Your task to perform on an android device: check google app version Image 0: 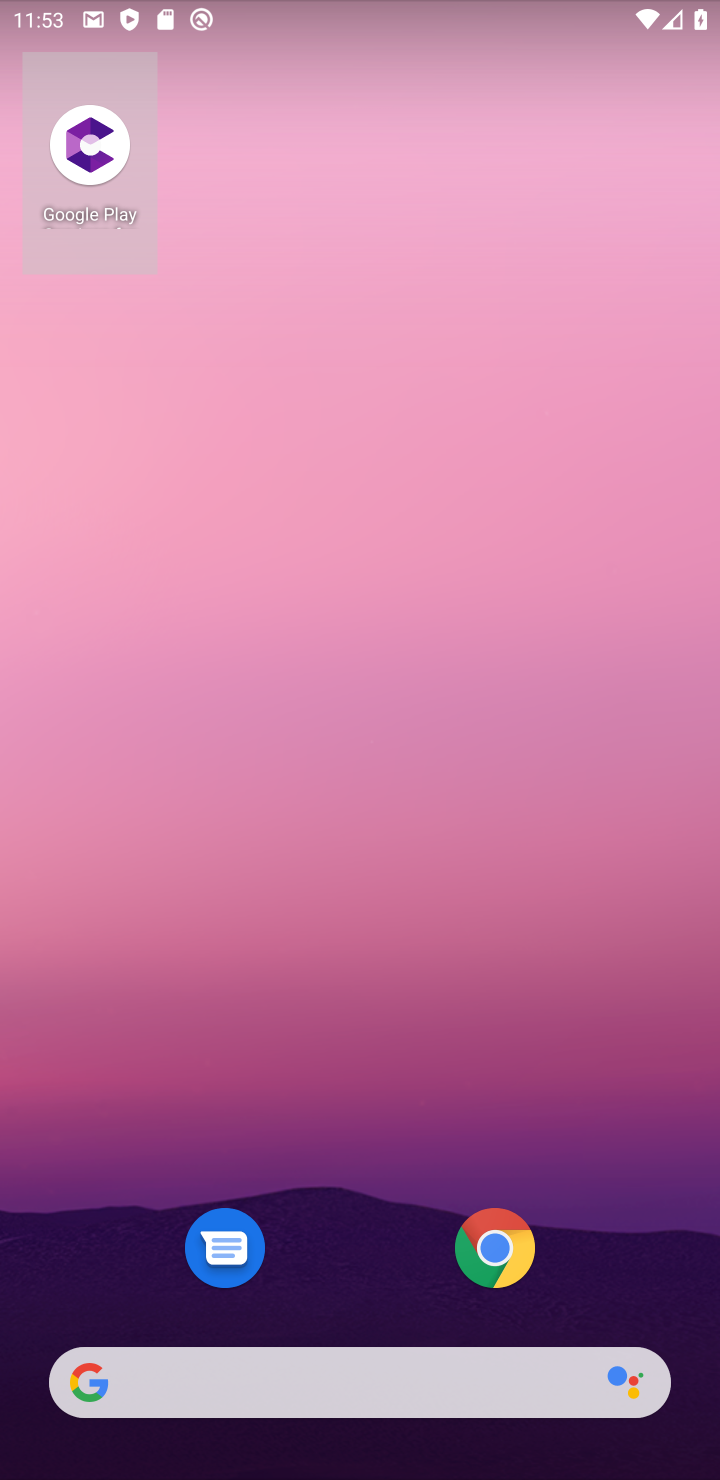
Step 0: click (395, 204)
Your task to perform on an android device: check google app version Image 1: 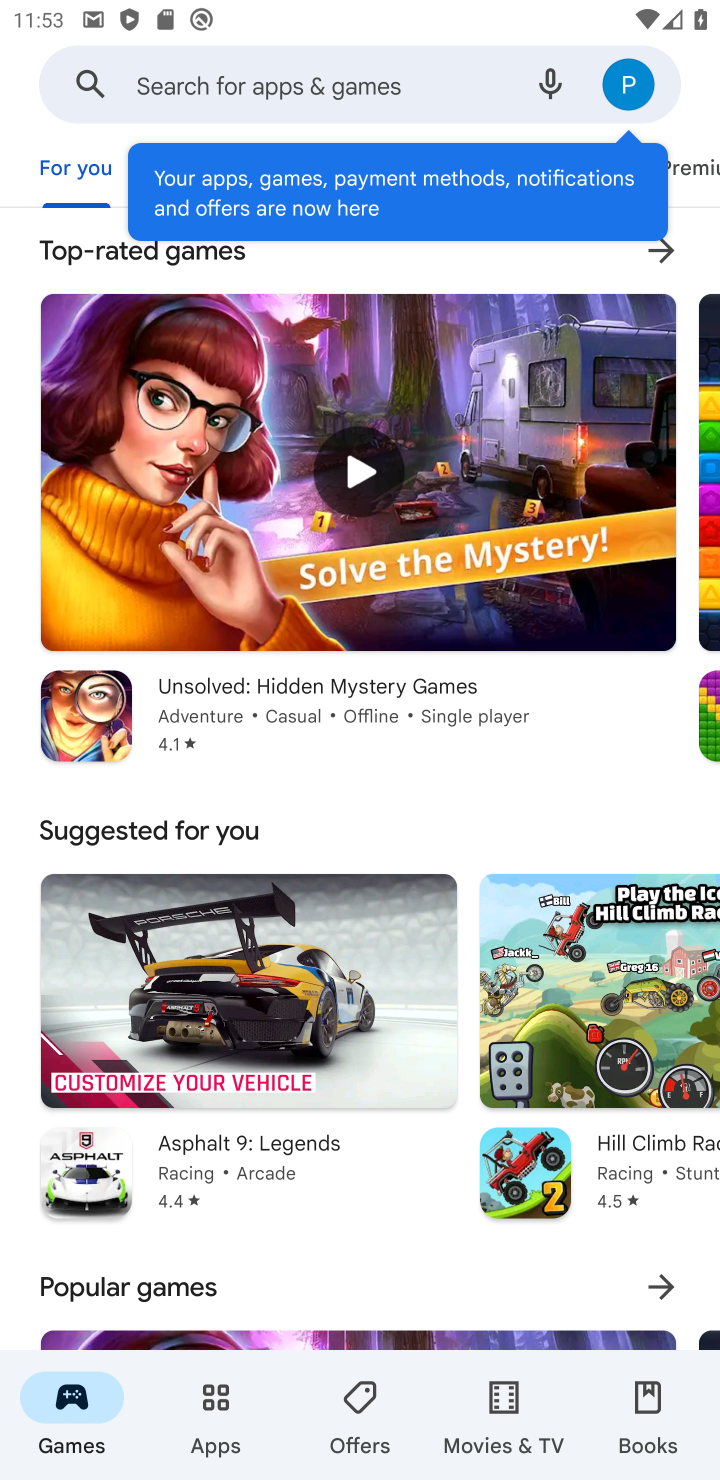
Step 1: press home button
Your task to perform on an android device: check google app version Image 2: 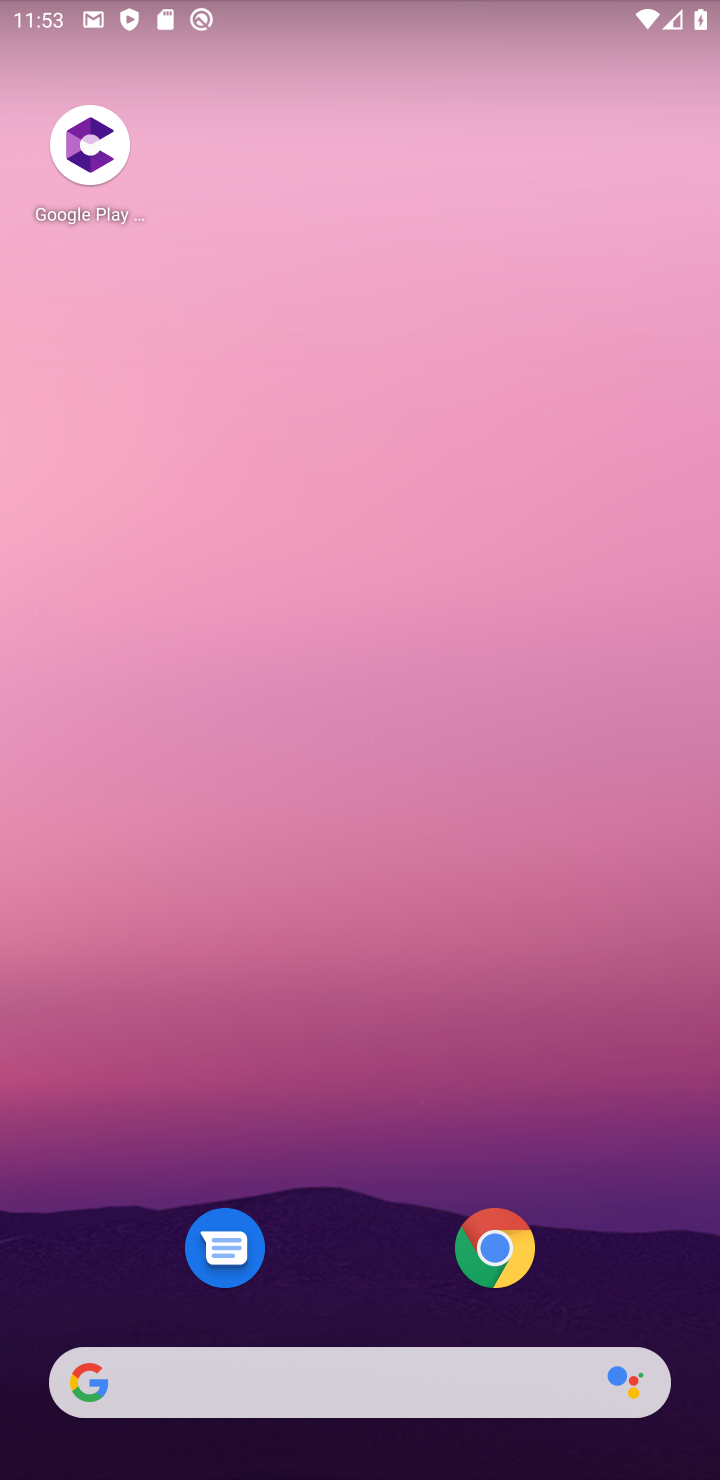
Step 2: click (472, 1252)
Your task to perform on an android device: check google app version Image 3: 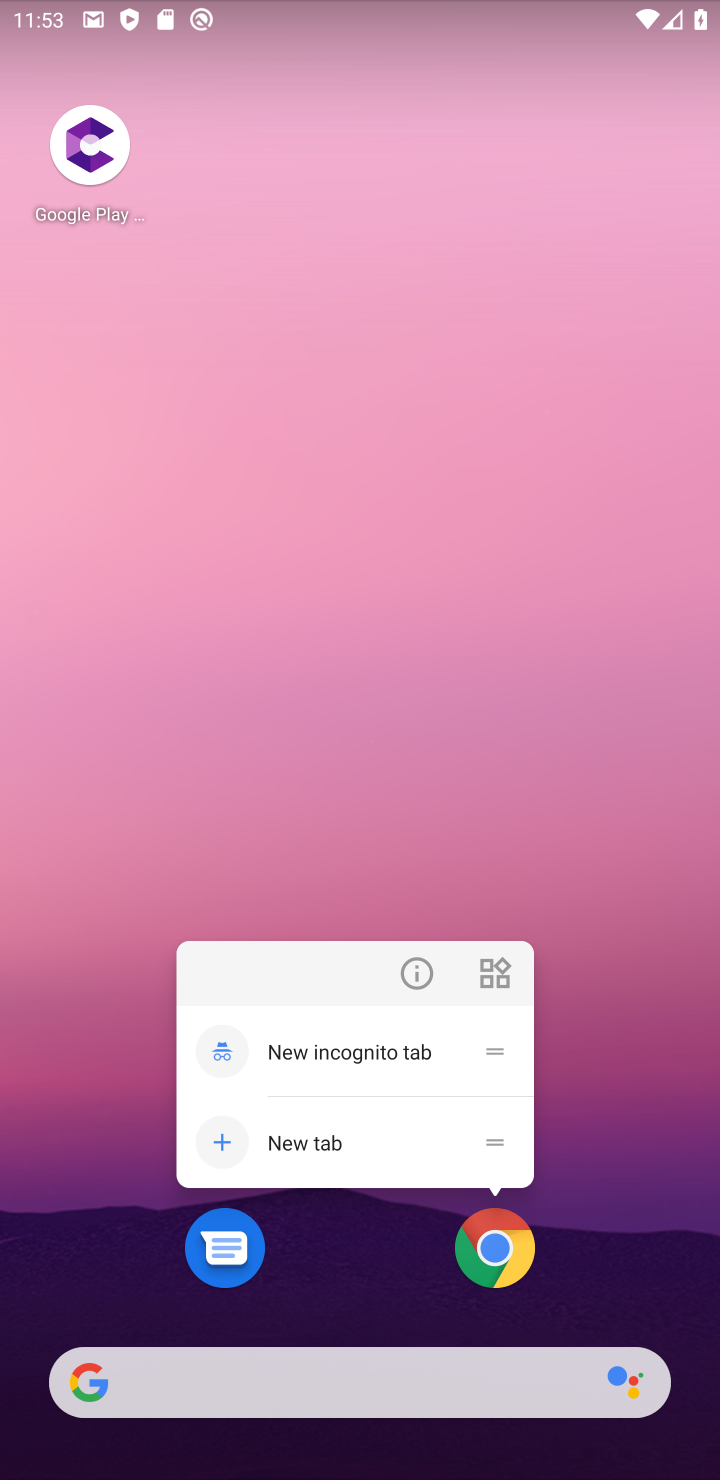
Step 3: click (411, 981)
Your task to perform on an android device: check google app version Image 4: 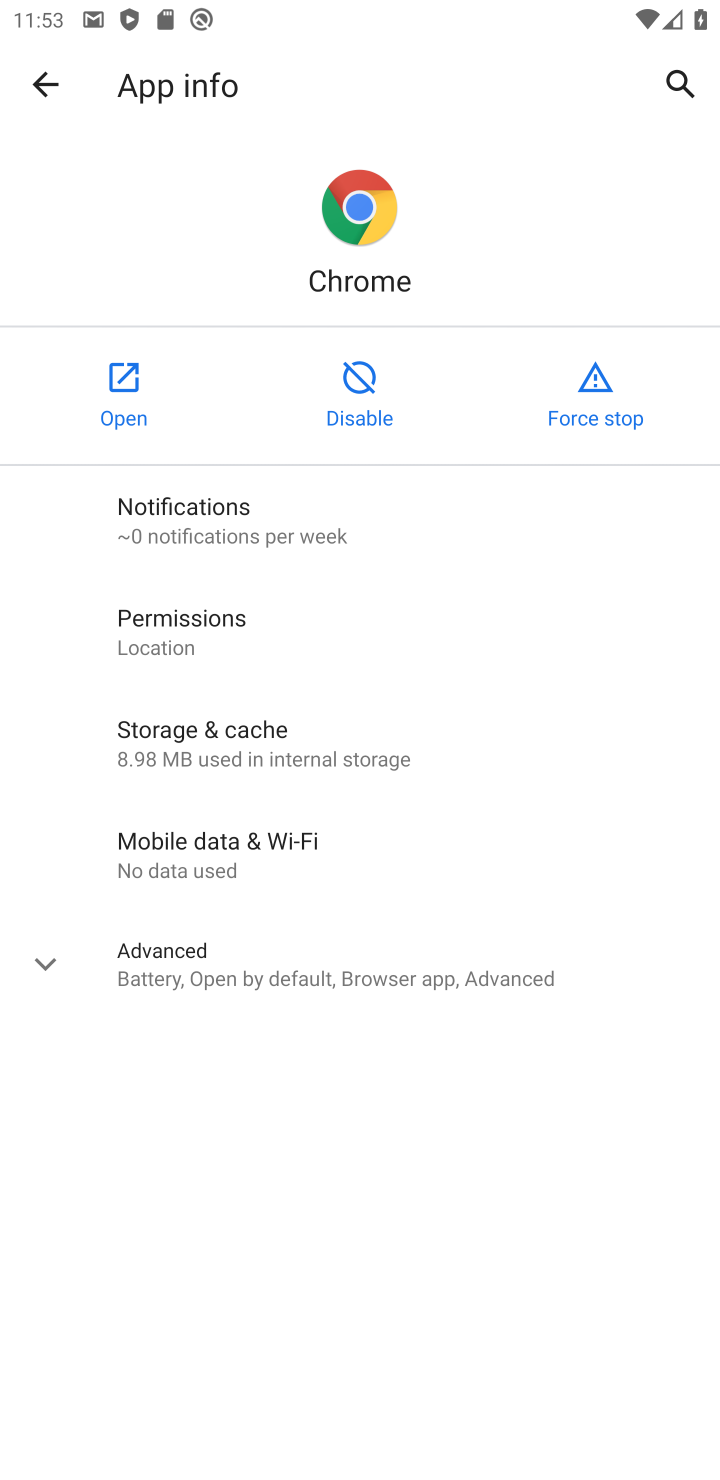
Step 4: click (159, 949)
Your task to perform on an android device: check google app version Image 5: 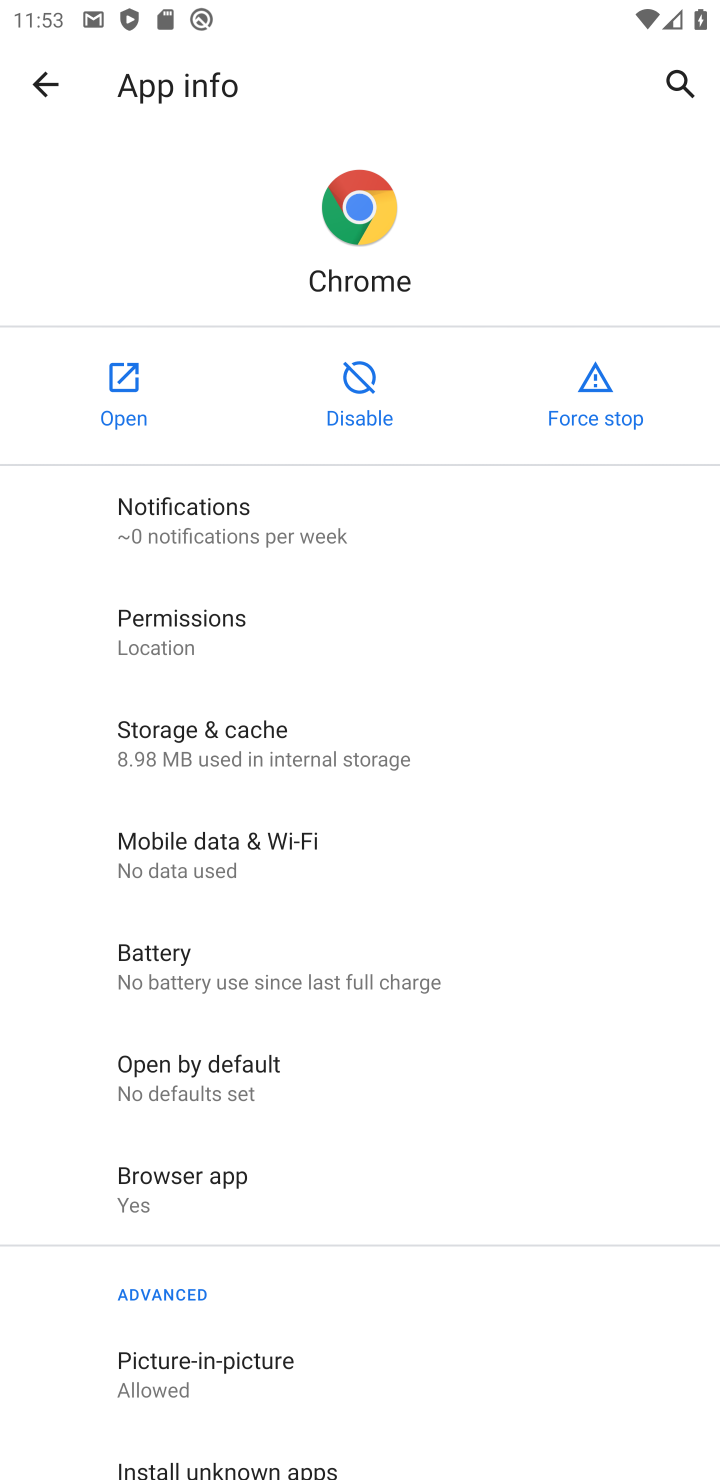
Step 5: task complete